Your task to perform on an android device: Go to eBay Image 0: 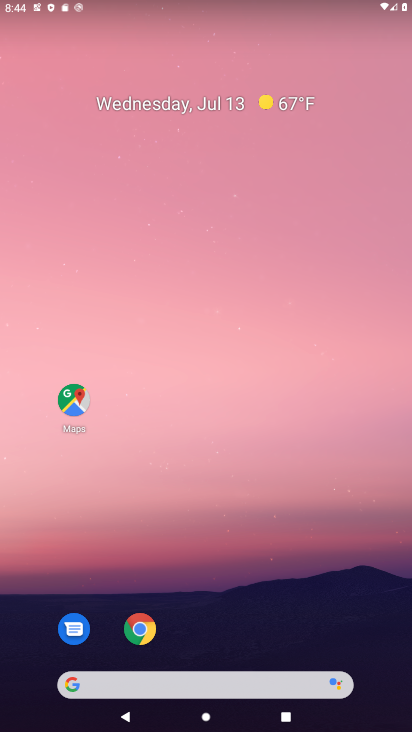
Step 0: click (138, 633)
Your task to perform on an android device: Go to eBay Image 1: 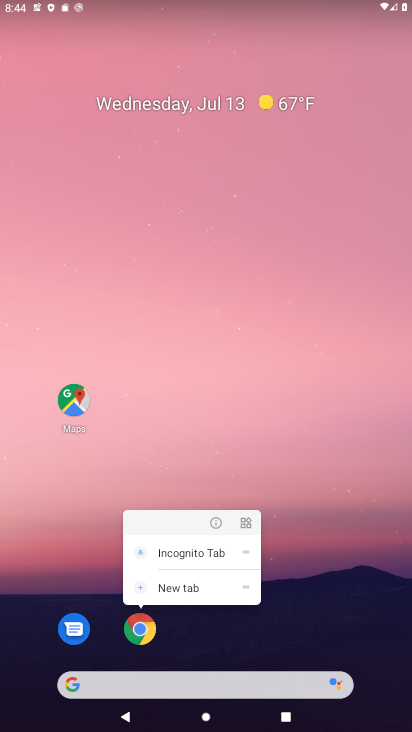
Step 1: click (143, 639)
Your task to perform on an android device: Go to eBay Image 2: 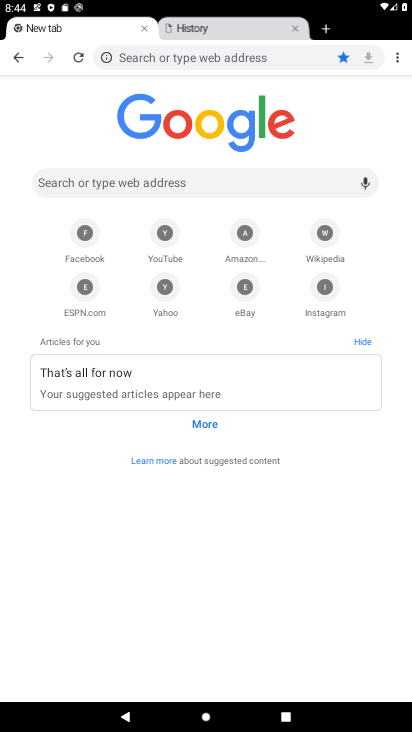
Step 2: click (240, 291)
Your task to perform on an android device: Go to eBay Image 3: 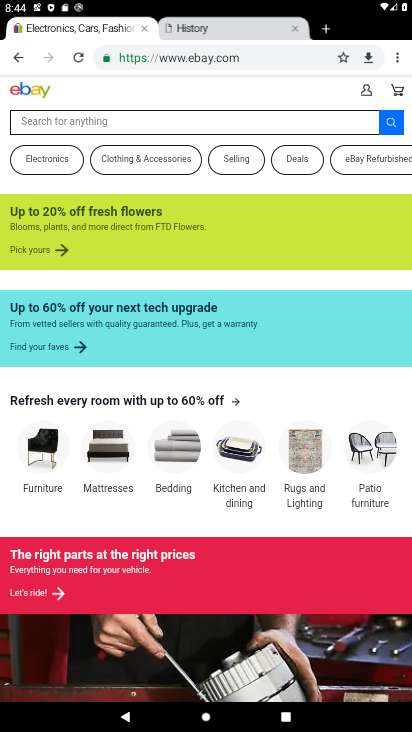
Step 3: task complete